Your task to perform on an android device: What is the news today? Image 0: 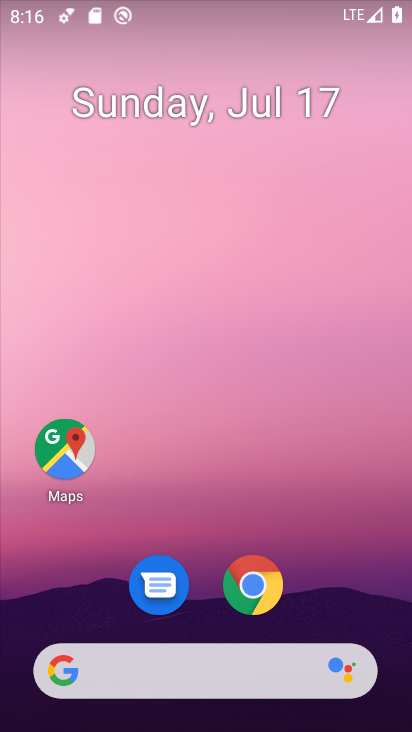
Step 0: click (232, 672)
Your task to perform on an android device: What is the news today? Image 1: 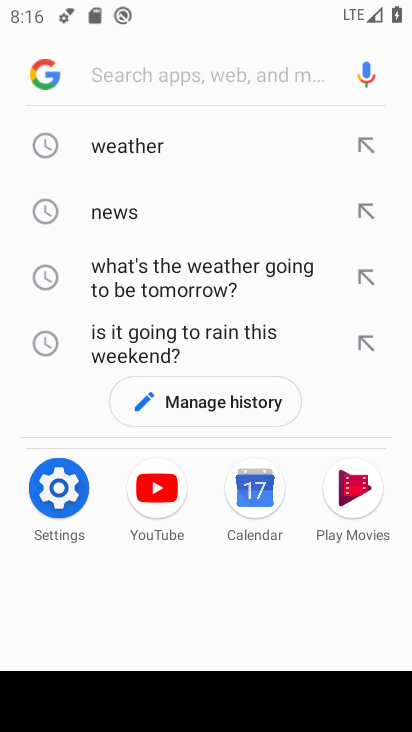
Step 1: click (97, 209)
Your task to perform on an android device: What is the news today? Image 2: 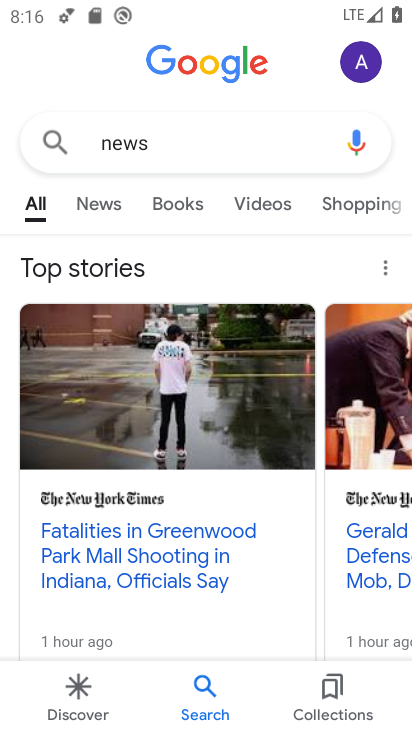
Step 2: task complete